Your task to perform on an android device: Open eBay Image 0: 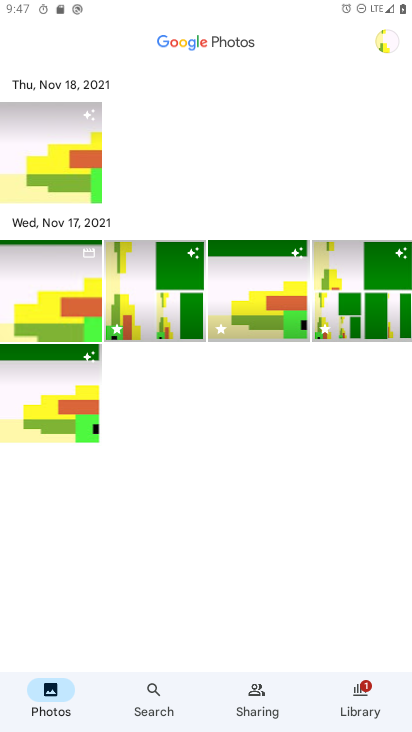
Step 0: press home button
Your task to perform on an android device: Open eBay Image 1: 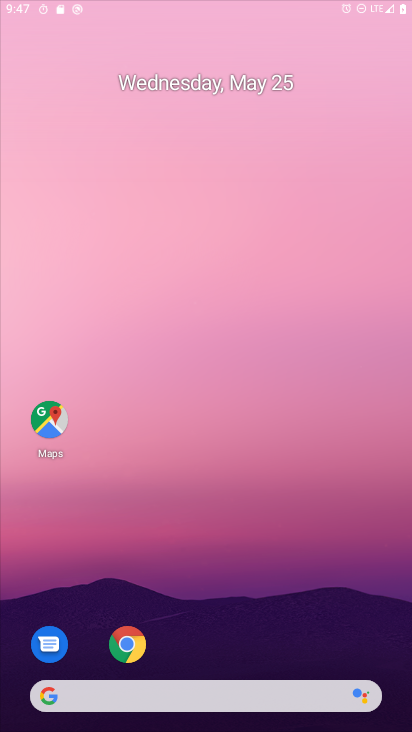
Step 1: drag from (359, 621) to (329, 15)
Your task to perform on an android device: Open eBay Image 2: 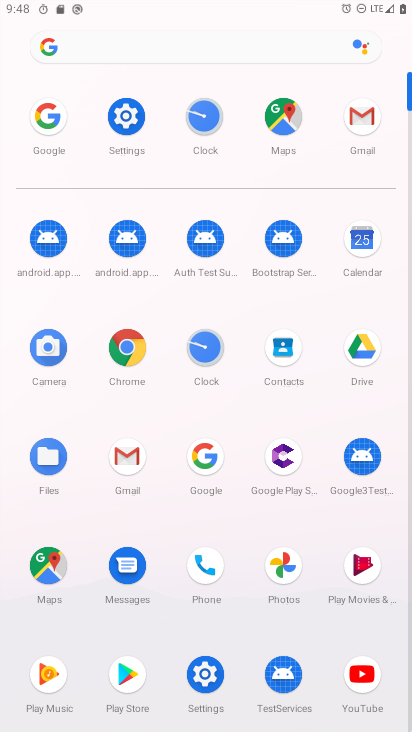
Step 2: click (207, 457)
Your task to perform on an android device: Open eBay Image 3: 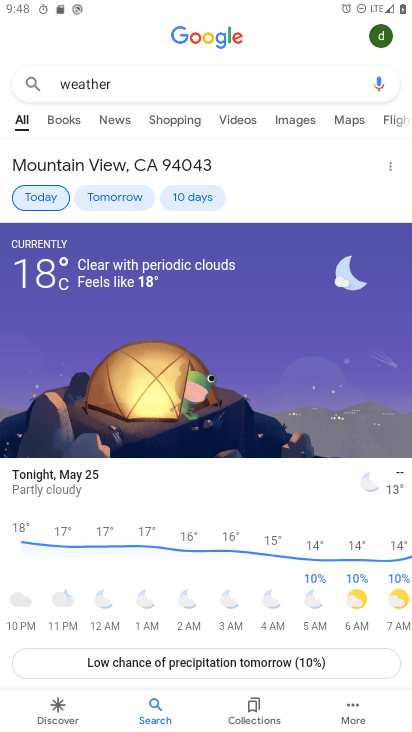
Step 3: press back button
Your task to perform on an android device: Open eBay Image 4: 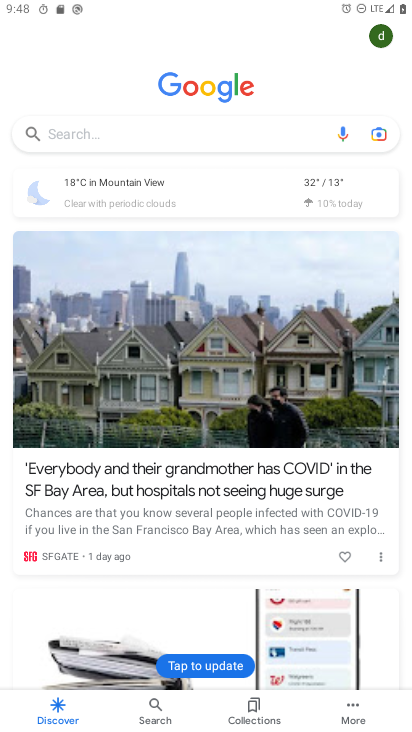
Step 4: click (217, 135)
Your task to perform on an android device: Open eBay Image 5: 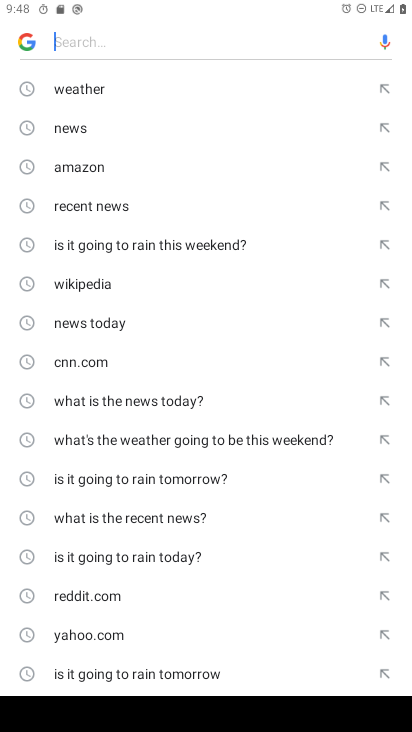
Step 5: drag from (127, 591) to (135, 259)
Your task to perform on an android device: Open eBay Image 6: 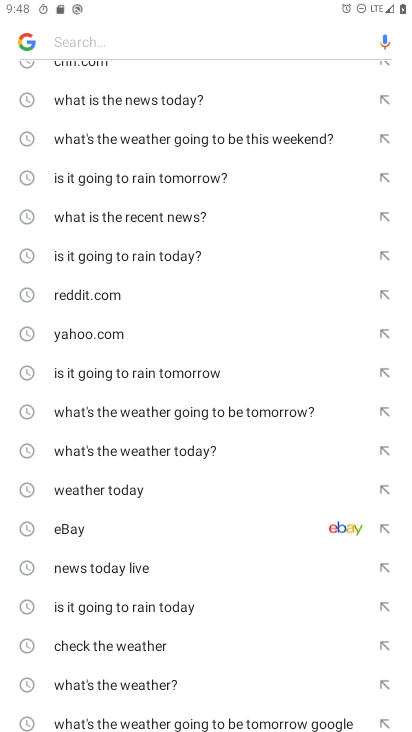
Step 6: click (142, 533)
Your task to perform on an android device: Open eBay Image 7: 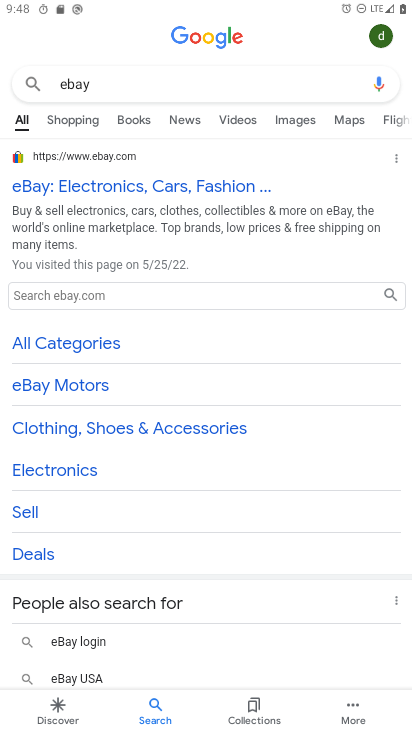
Step 7: task complete